Your task to perform on an android device: turn notification dots off Image 0: 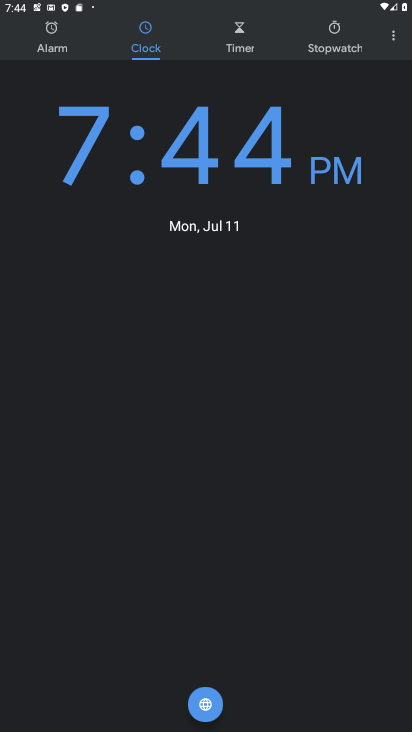
Step 0: press back button
Your task to perform on an android device: turn notification dots off Image 1: 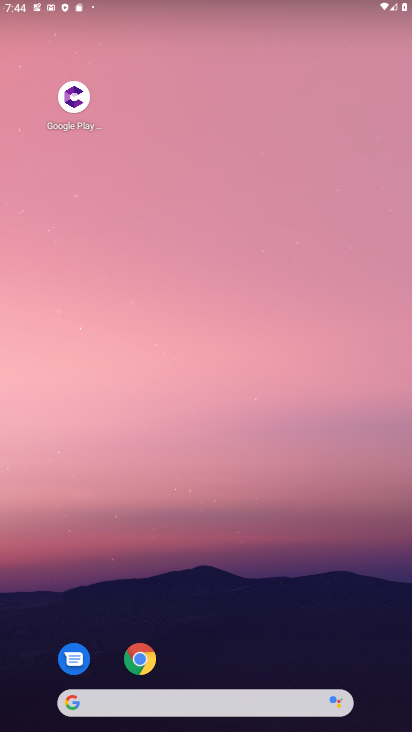
Step 1: drag from (272, 561) to (273, 73)
Your task to perform on an android device: turn notification dots off Image 2: 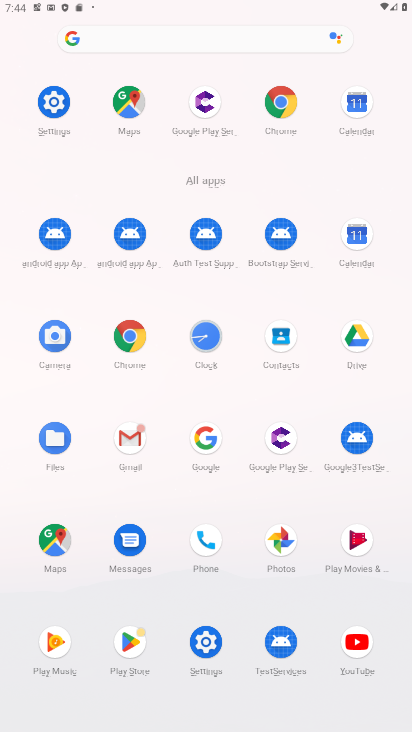
Step 2: click (202, 643)
Your task to perform on an android device: turn notification dots off Image 3: 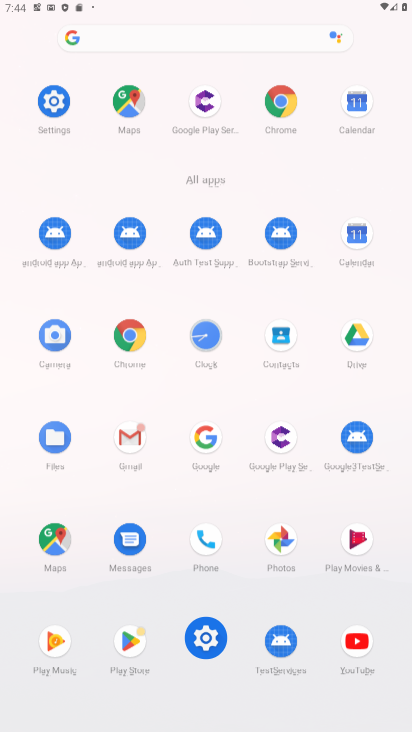
Step 3: click (196, 637)
Your task to perform on an android device: turn notification dots off Image 4: 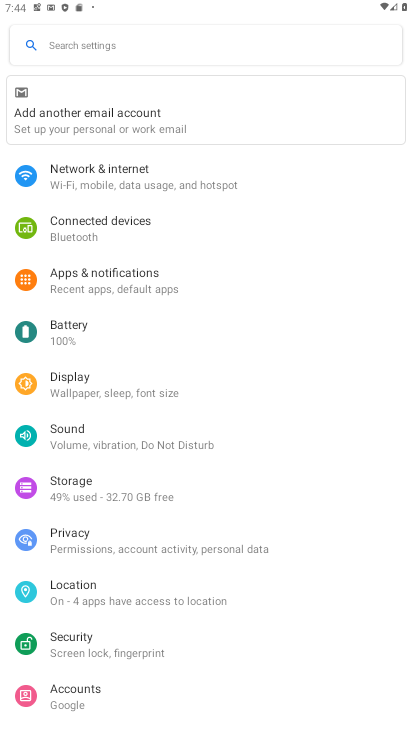
Step 4: drag from (152, 429) to (135, 228)
Your task to perform on an android device: turn notification dots off Image 5: 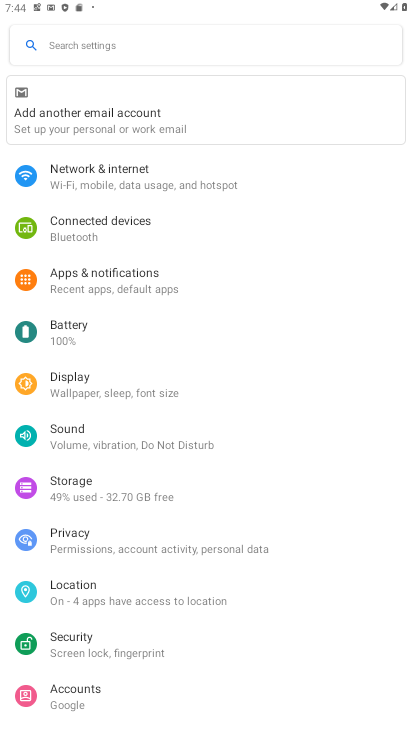
Step 5: click (111, 277)
Your task to perform on an android device: turn notification dots off Image 6: 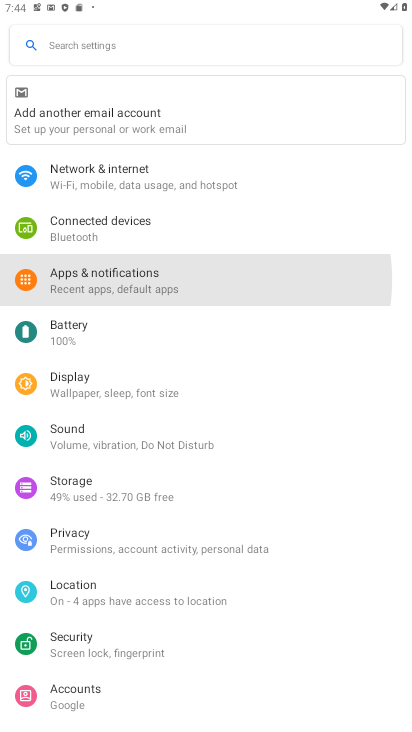
Step 6: click (111, 280)
Your task to perform on an android device: turn notification dots off Image 7: 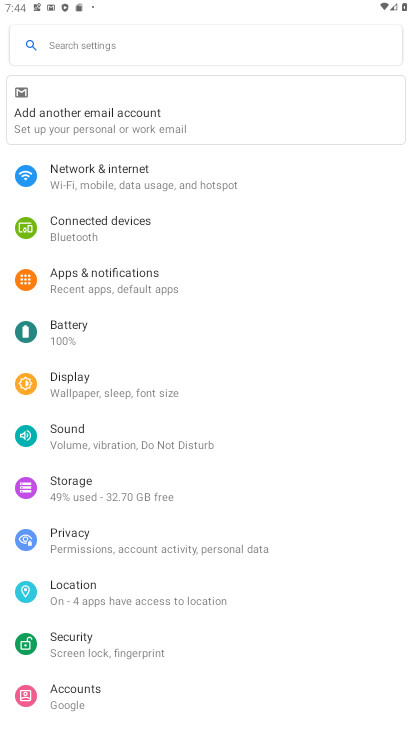
Step 7: click (112, 281)
Your task to perform on an android device: turn notification dots off Image 8: 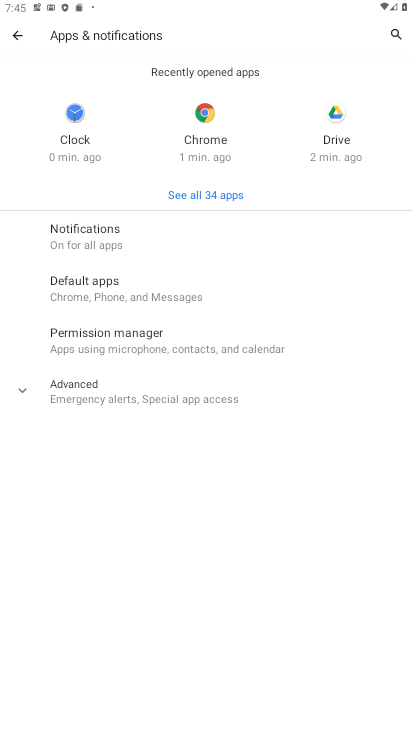
Step 8: click (86, 238)
Your task to perform on an android device: turn notification dots off Image 9: 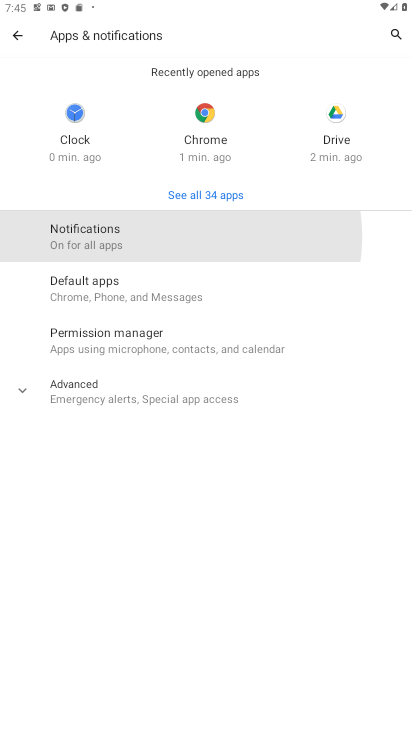
Step 9: click (82, 238)
Your task to perform on an android device: turn notification dots off Image 10: 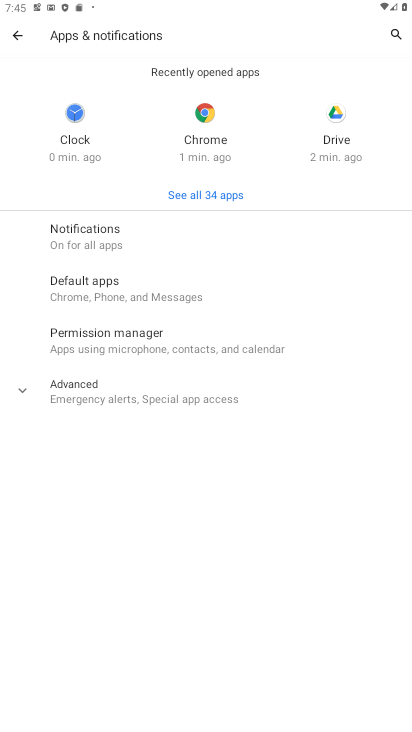
Step 10: click (82, 238)
Your task to perform on an android device: turn notification dots off Image 11: 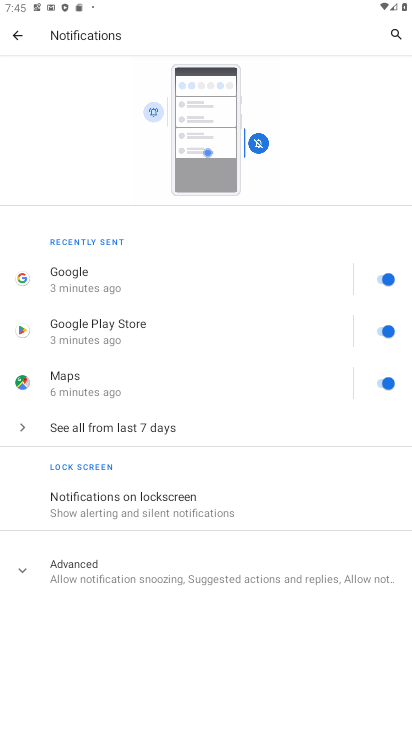
Step 11: click (91, 568)
Your task to perform on an android device: turn notification dots off Image 12: 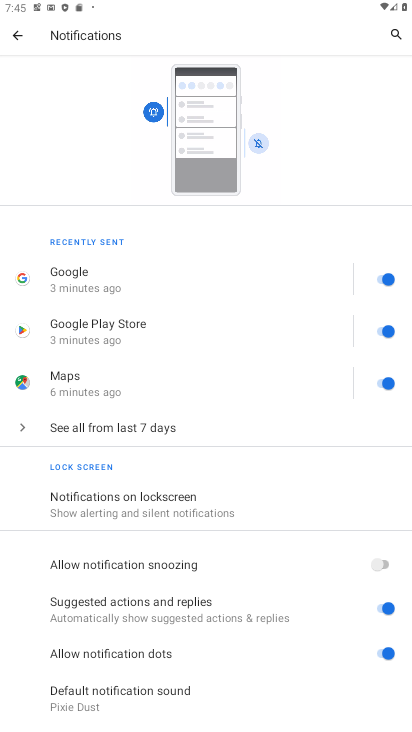
Step 12: click (145, 646)
Your task to perform on an android device: turn notification dots off Image 13: 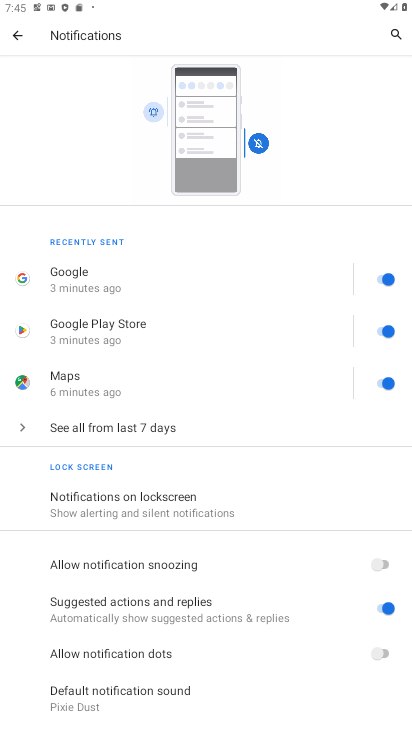
Step 13: task complete